Your task to perform on an android device: toggle translation in the chrome app Image 0: 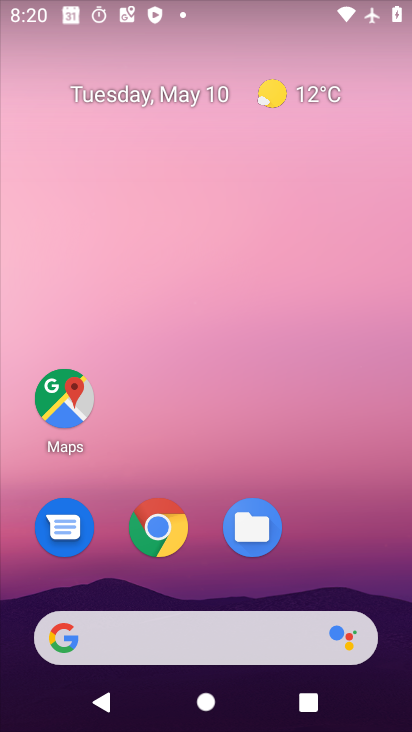
Step 0: click (175, 521)
Your task to perform on an android device: toggle translation in the chrome app Image 1: 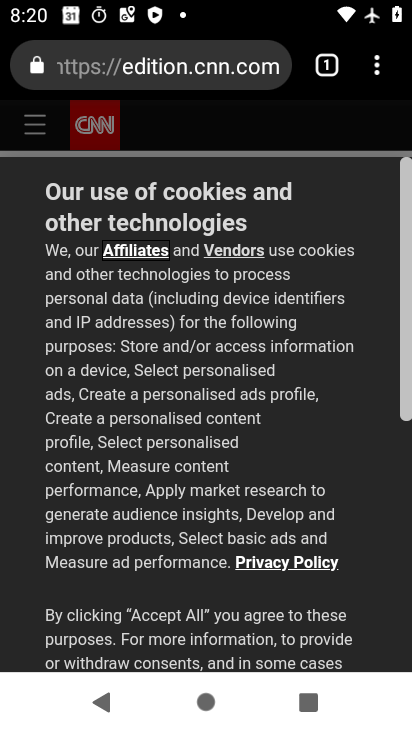
Step 1: drag from (375, 67) to (170, 579)
Your task to perform on an android device: toggle translation in the chrome app Image 2: 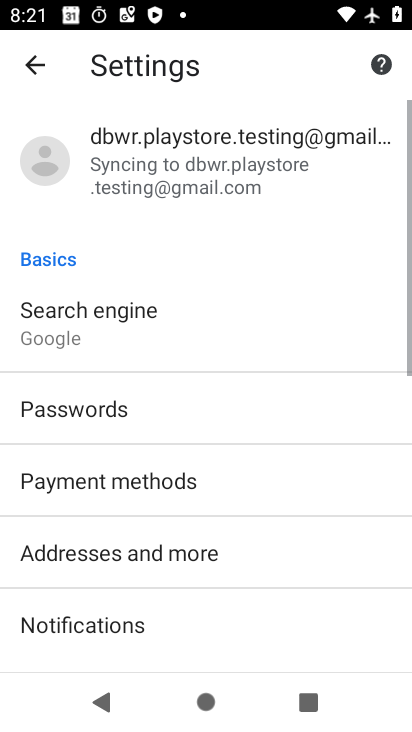
Step 2: drag from (186, 579) to (214, 249)
Your task to perform on an android device: toggle translation in the chrome app Image 3: 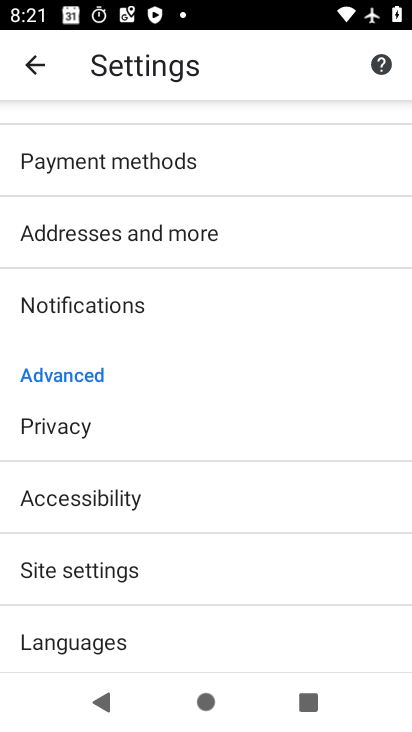
Step 3: click (150, 647)
Your task to perform on an android device: toggle translation in the chrome app Image 4: 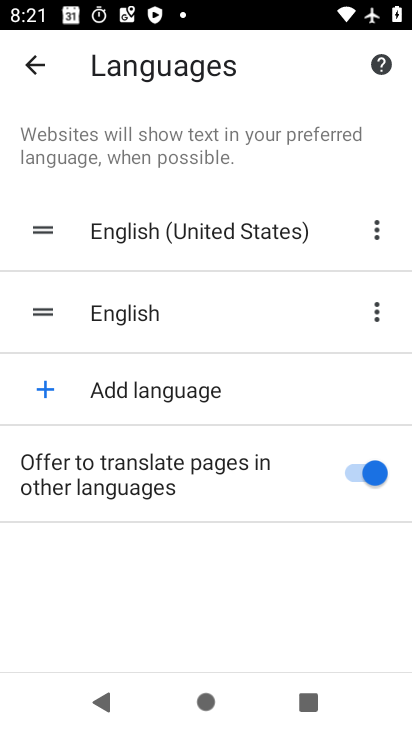
Step 4: click (358, 471)
Your task to perform on an android device: toggle translation in the chrome app Image 5: 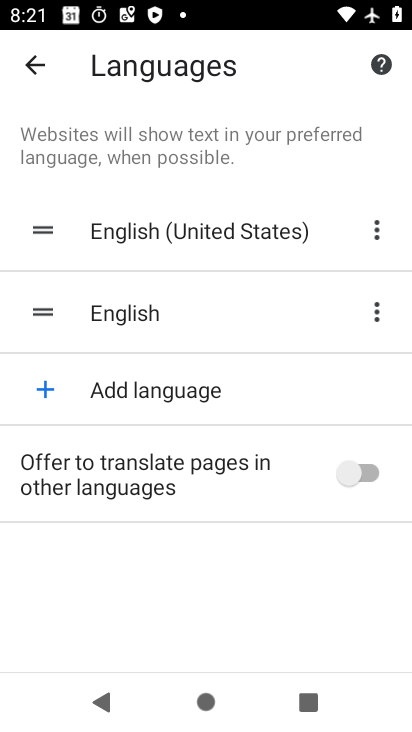
Step 5: task complete